Your task to perform on an android device: Clear all items from cart on newegg.com. Add "razer deathadder" to the cart on newegg.com Image 0: 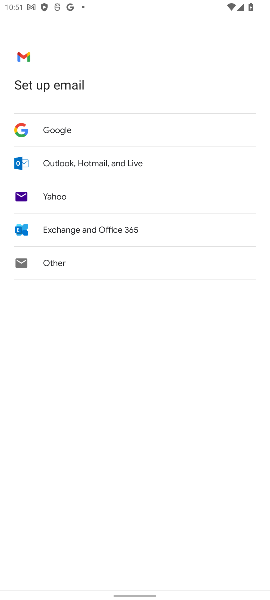
Step 0: press home button
Your task to perform on an android device: Clear all items from cart on newegg.com. Add "razer deathadder" to the cart on newegg.com Image 1: 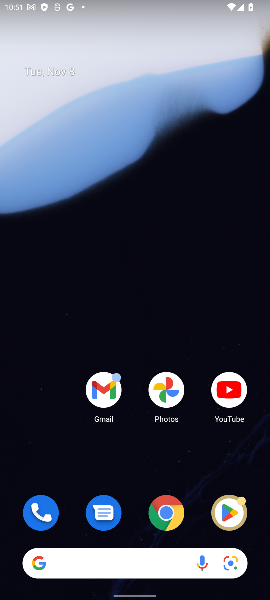
Step 1: click (170, 511)
Your task to perform on an android device: Clear all items from cart on newegg.com. Add "razer deathadder" to the cart on newegg.com Image 2: 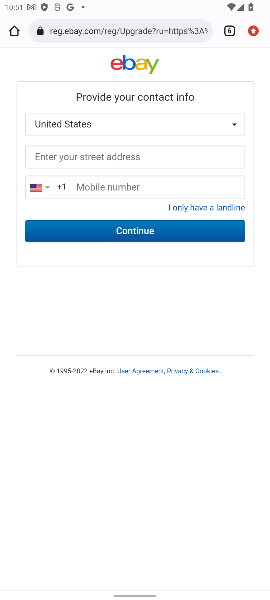
Step 2: click (228, 32)
Your task to perform on an android device: Clear all items from cart on newegg.com. Add "razer deathadder" to the cart on newegg.com Image 3: 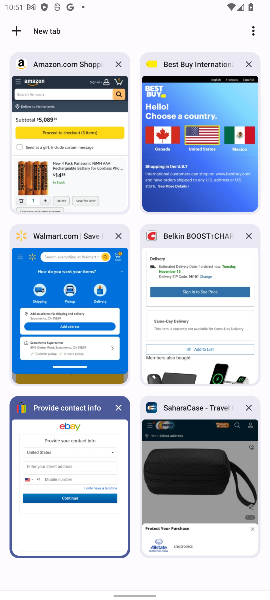
Step 3: click (195, 475)
Your task to perform on an android device: Clear all items from cart on newegg.com. Add "razer deathadder" to the cart on newegg.com Image 4: 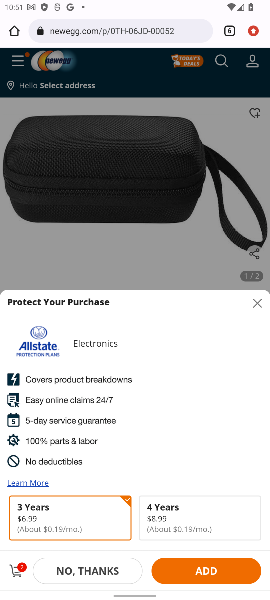
Step 4: click (256, 301)
Your task to perform on an android device: Clear all items from cart on newegg.com. Add "razer deathadder" to the cart on newegg.com Image 5: 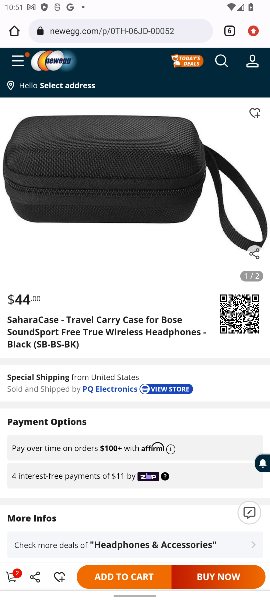
Step 5: click (5, 579)
Your task to perform on an android device: Clear all items from cart on newegg.com. Add "razer deathadder" to the cart on newegg.com Image 6: 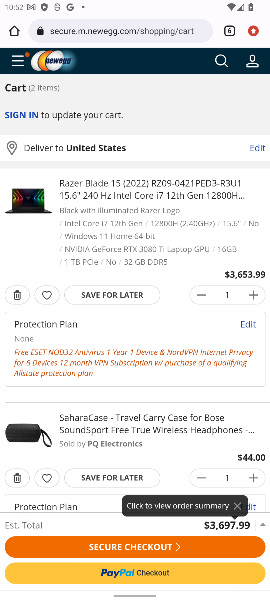
Step 6: click (14, 293)
Your task to perform on an android device: Clear all items from cart on newegg.com. Add "razer deathadder" to the cart on newegg.com Image 7: 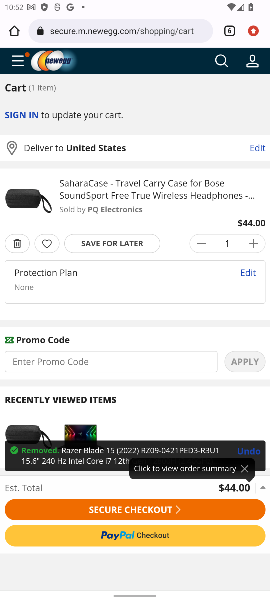
Step 7: click (16, 245)
Your task to perform on an android device: Clear all items from cart on newegg.com. Add "razer deathadder" to the cart on newegg.com Image 8: 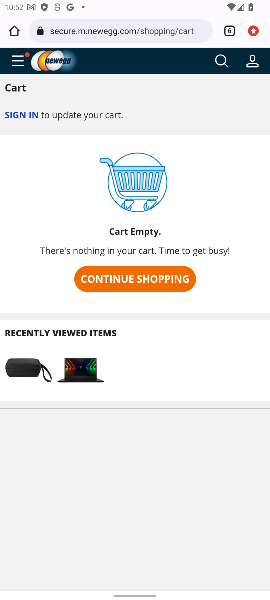
Step 8: click (216, 62)
Your task to perform on an android device: Clear all items from cart on newegg.com. Add "razer deathadder" to the cart on newegg.com Image 9: 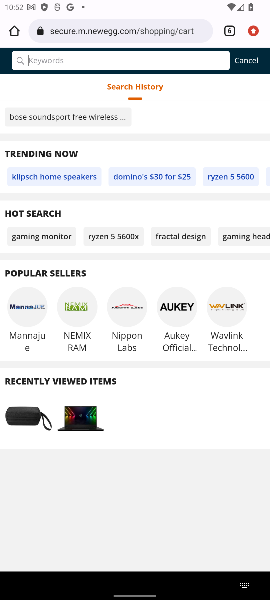
Step 9: type "razer deathadder"
Your task to perform on an android device: Clear all items from cart on newegg.com. Add "razer deathadder" to the cart on newegg.com Image 10: 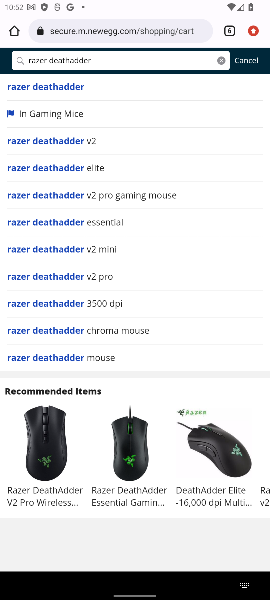
Step 10: click (59, 85)
Your task to perform on an android device: Clear all items from cart on newegg.com. Add "razer deathadder" to the cart on newegg.com Image 11: 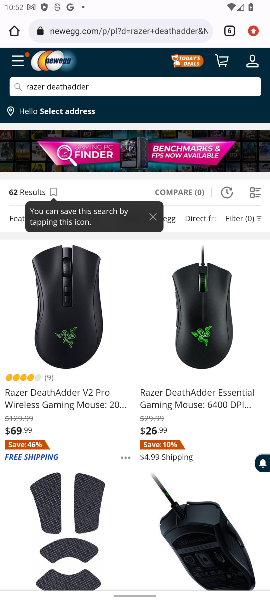
Step 11: click (69, 398)
Your task to perform on an android device: Clear all items from cart on newegg.com. Add "razer deathadder" to the cart on newegg.com Image 12: 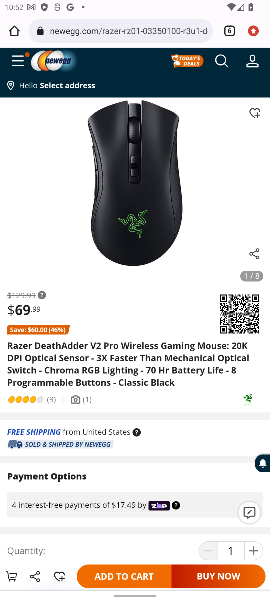
Step 12: click (116, 577)
Your task to perform on an android device: Clear all items from cart on newegg.com. Add "razer deathadder" to the cart on newegg.com Image 13: 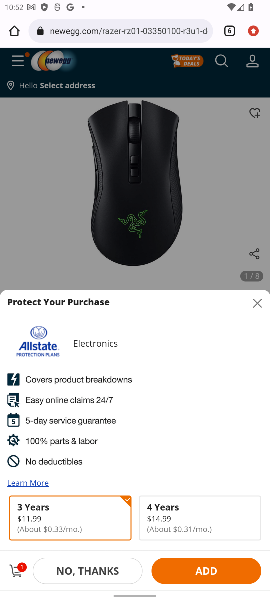
Step 13: task complete